Your task to perform on an android device: check battery use Image 0: 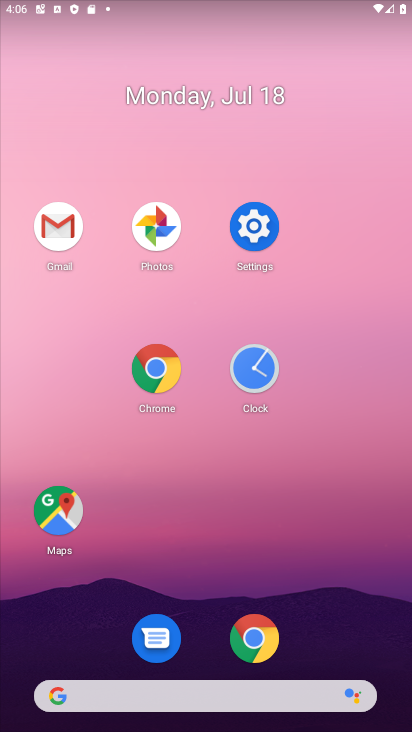
Step 0: click (250, 228)
Your task to perform on an android device: check battery use Image 1: 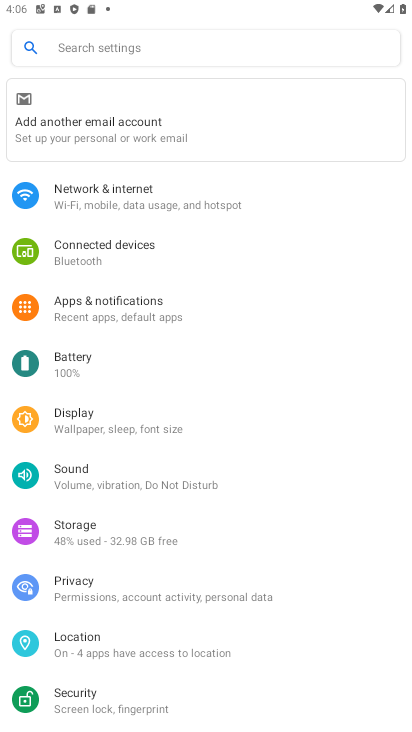
Step 1: click (97, 376)
Your task to perform on an android device: check battery use Image 2: 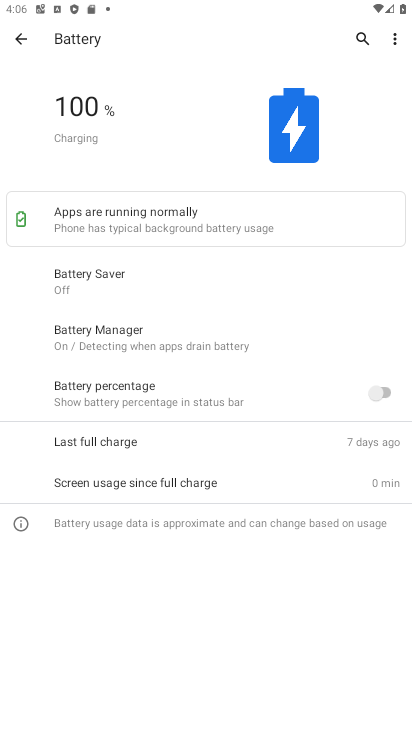
Step 2: click (393, 47)
Your task to perform on an android device: check battery use Image 3: 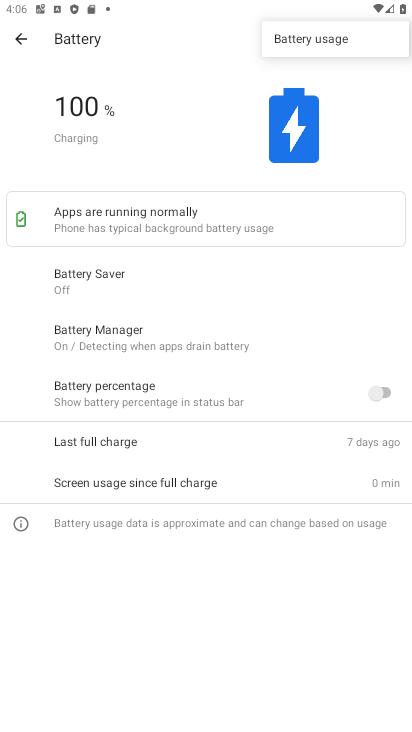
Step 3: click (294, 42)
Your task to perform on an android device: check battery use Image 4: 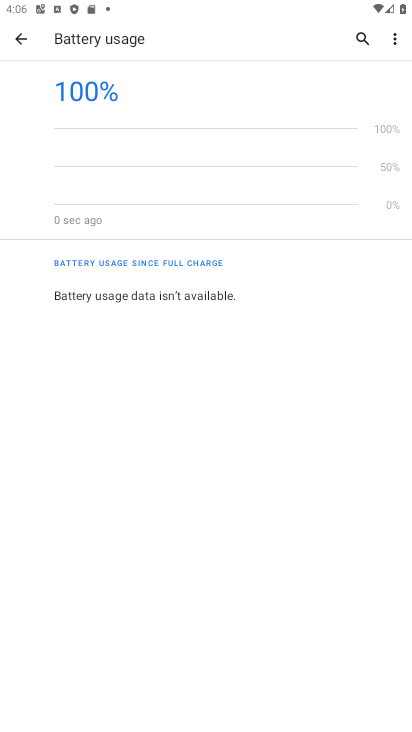
Step 4: task complete